Your task to perform on an android device: turn on the 24-hour format for clock Image 0: 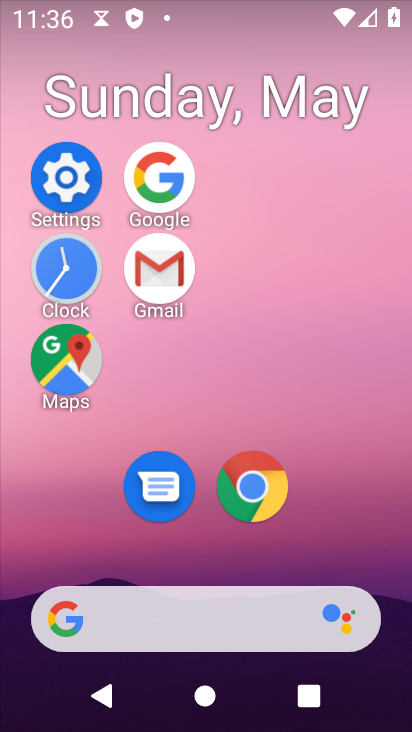
Step 0: click (80, 286)
Your task to perform on an android device: turn on the 24-hour format for clock Image 1: 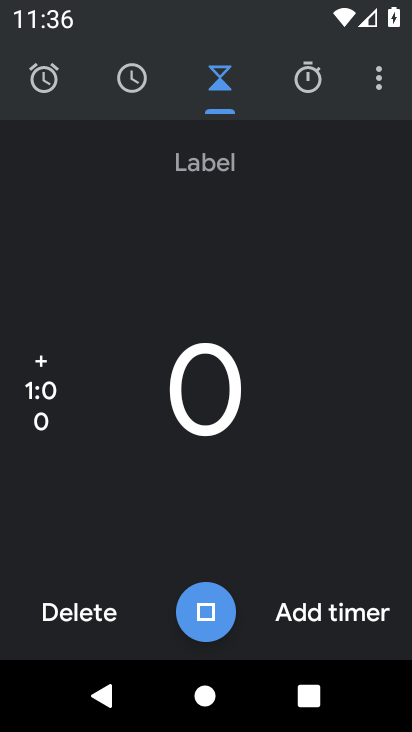
Step 1: click (378, 80)
Your task to perform on an android device: turn on the 24-hour format for clock Image 2: 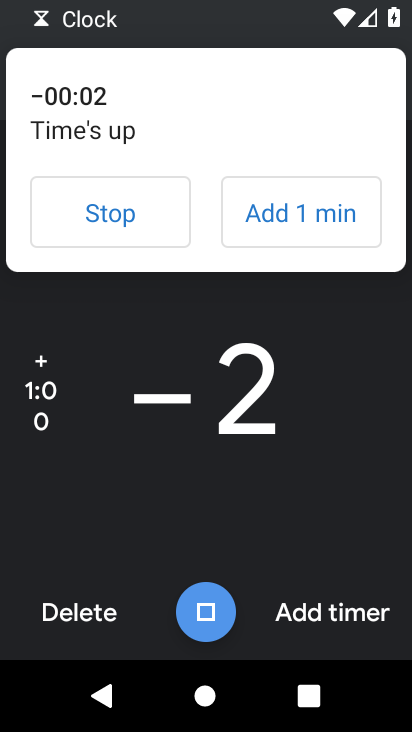
Step 2: click (160, 201)
Your task to perform on an android device: turn on the 24-hour format for clock Image 3: 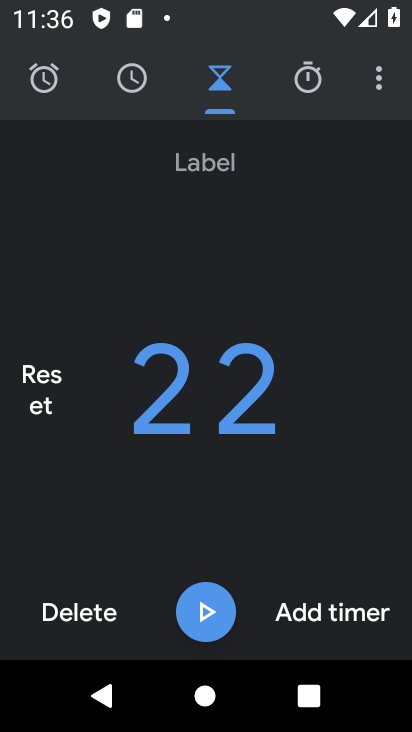
Step 3: click (377, 78)
Your task to perform on an android device: turn on the 24-hour format for clock Image 4: 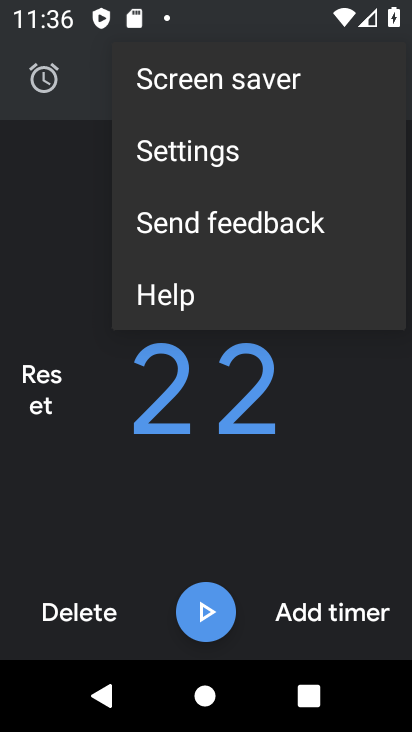
Step 4: click (248, 163)
Your task to perform on an android device: turn on the 24-hour format for clock Image 5: 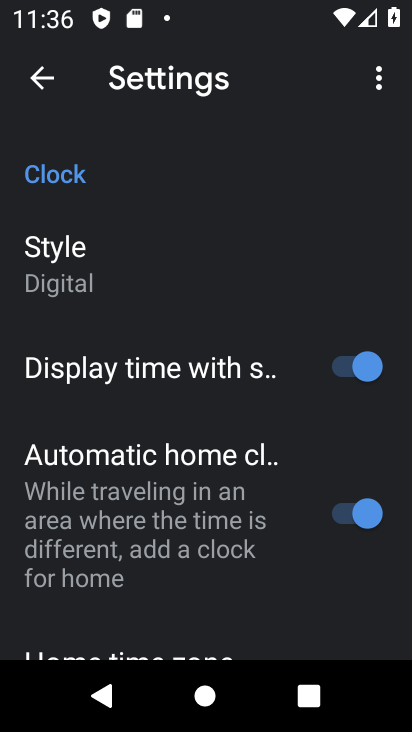
Step 5: drag from (237, 632) to (272, 253)
Your task to perform on an android device: turn on the 24-hour format for clock Image 6: 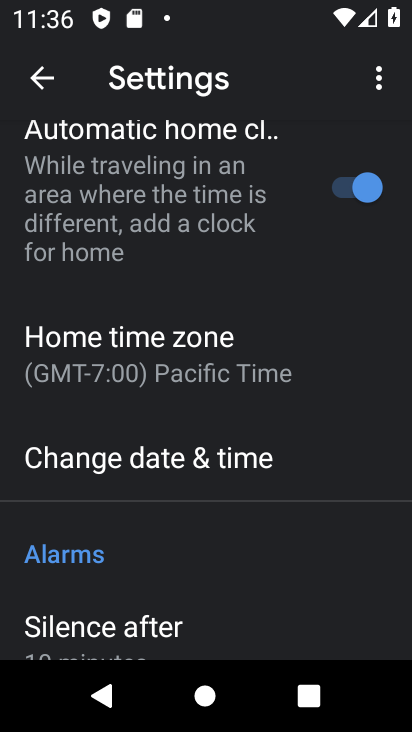
Step 6: drag from (282, 578) to (283, 282)
Your task to perform on an android device: turn on the 24-hour format for clock Image 7: 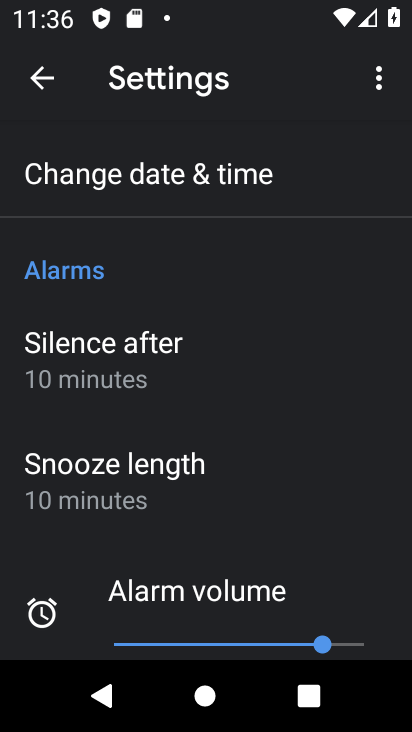
Step 7: drag from (263, 376) to (302, 66)
Your task to perform on an android device: turn on the 24-hour format for clock Image 8: 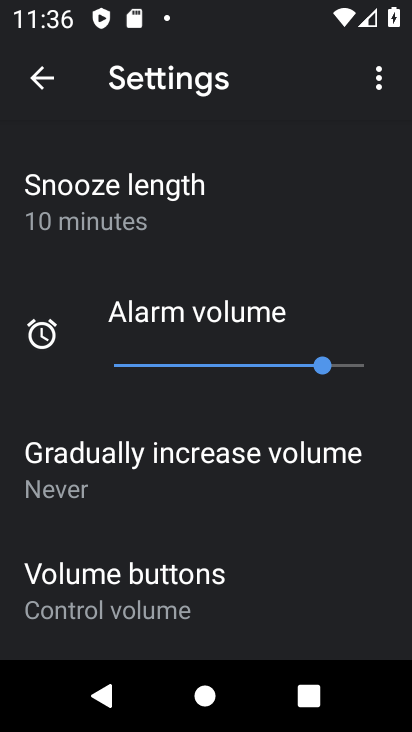
Step 8: drag from (364, 169) to (300, 455)
Your task to perform on an android device: turn on the 24-hour format for clock Image 9: 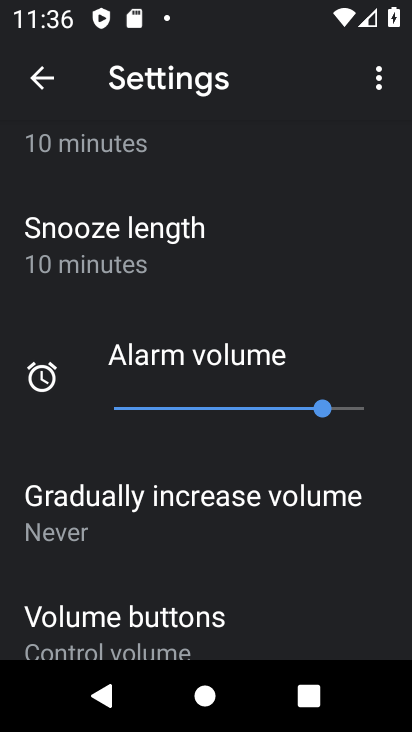
Step 9: drag from (312, 158) to (309, 548)
Your task to perform on an android device: turn on the 24-hour format for clock Image 10: 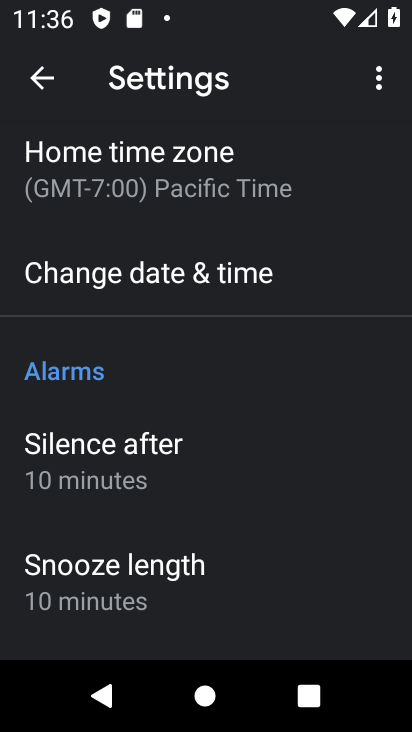
Step 10: click (262, 274)
Your task to perform on an android device: turn on the 24-hour format for clock Image 11: 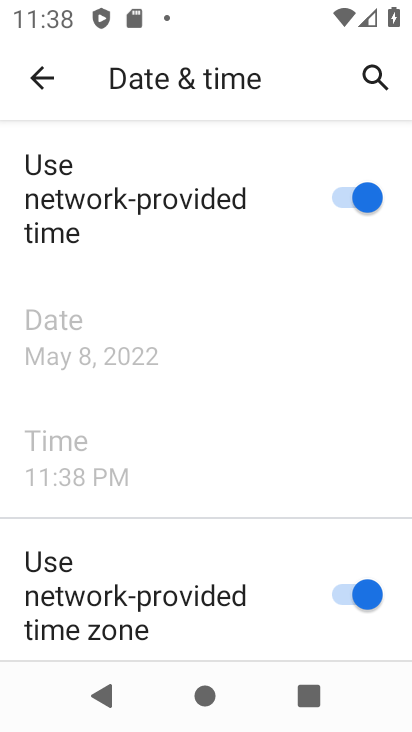
Step 11: drag from (200, 520) to (184, 138)
Your task to perform on an android device: turn on the 24-hour format for clock Image 12: 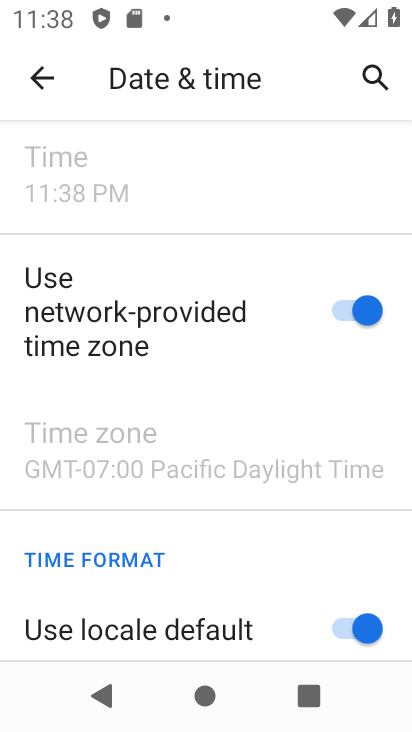
Step 12: drag from (251, 572) to (181, 176)
Your task to perform on an android device: turn on the 24-hour format for clock Image 13: 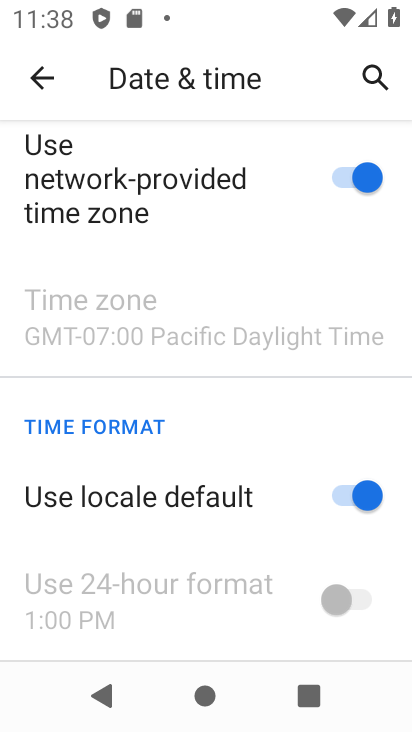
Step 13: click (360, 493)
Your task to perform on an android device: turn on the 24-hour format for clock Image 14: 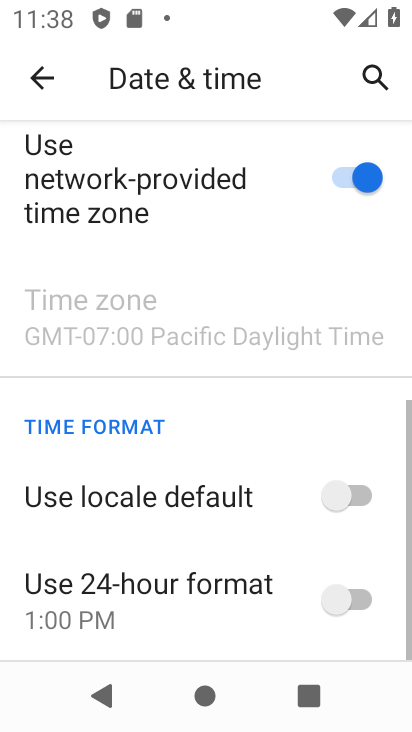
Step 14: click (336, 610)
Your task to perform on an android device: turn on the 24-hour format for clock Image 15: 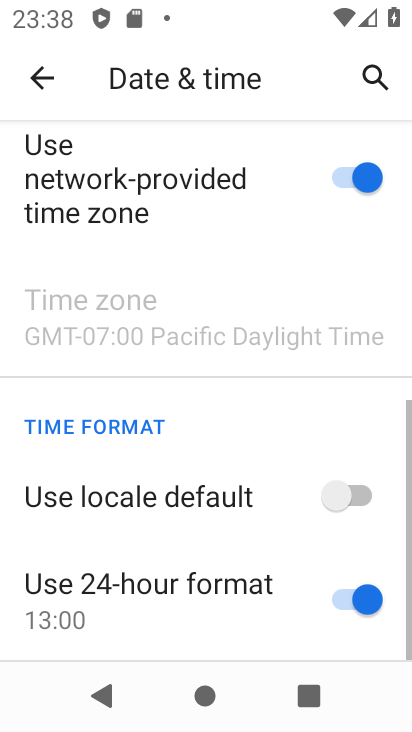
Step 15: task complete